Your task to perform on an android device: turn off notifications settings in the gmail app Image 0: 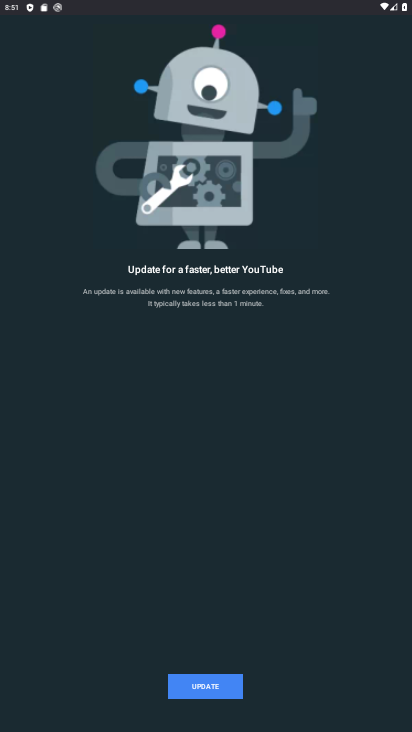
Step 0: press home button
Your task to perform on an android device: turn off notifications settings in the gmail app Image 1: 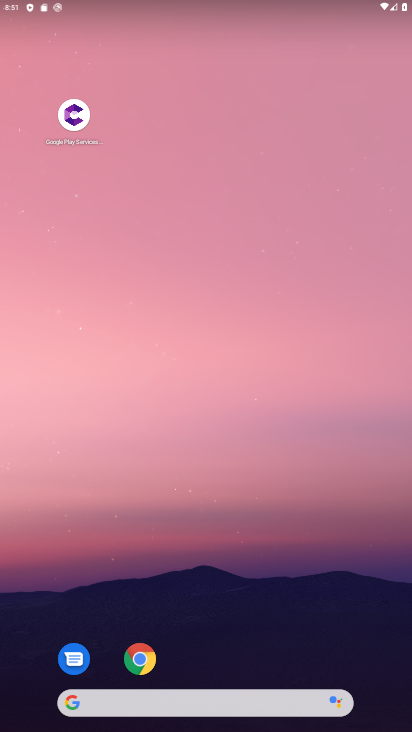
Step 1: drag from (372, 658) to (255, 18)
Your task to perform on an android device: turn off notifications settings in the gmail app Image 2: 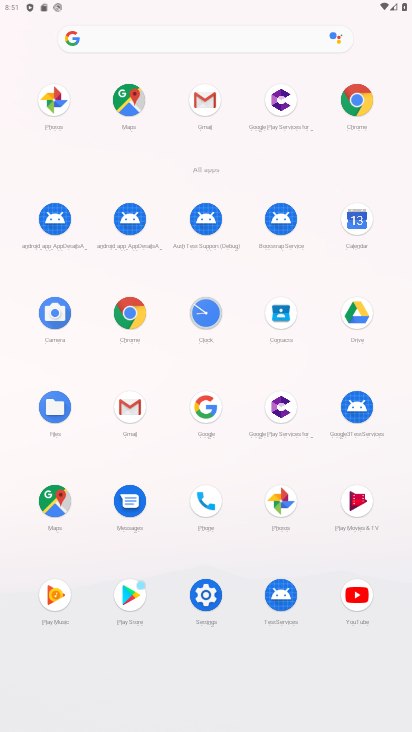
Step 2: click (130, 407)
Your task to perform on an android device: turn off notifications settings in the gmail app Image 3: 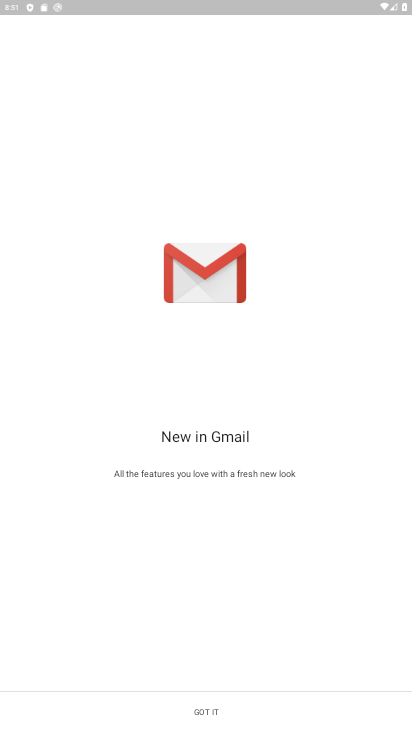
Step 3: click (219, 706)
Your task to perform on an android device: turn off notifications settings in the gmail app Image 4: 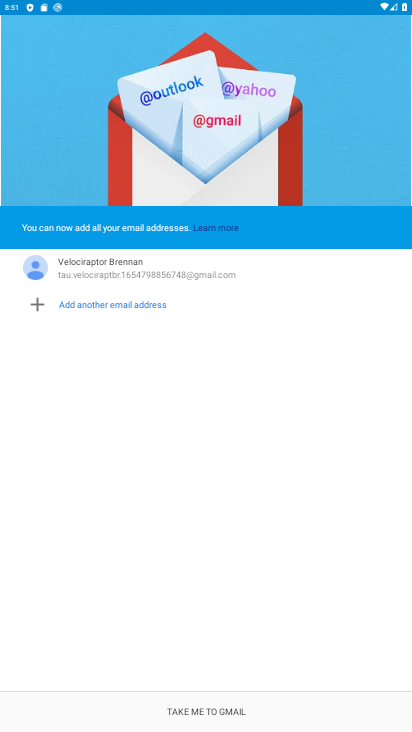
Step 4: click (219, 706)
Your task to perform on an android device: turn off notifications settings in the gmail app Image 5: 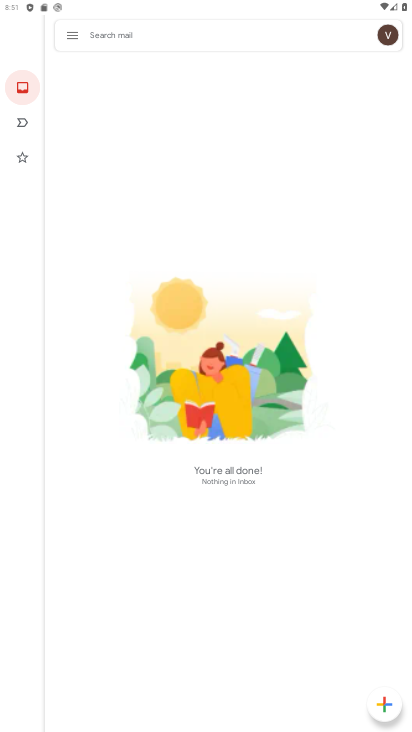
Step 5: click (67, 34)
Your task to perform on an android device: turn off notifications settings in the gmail app Image 6: 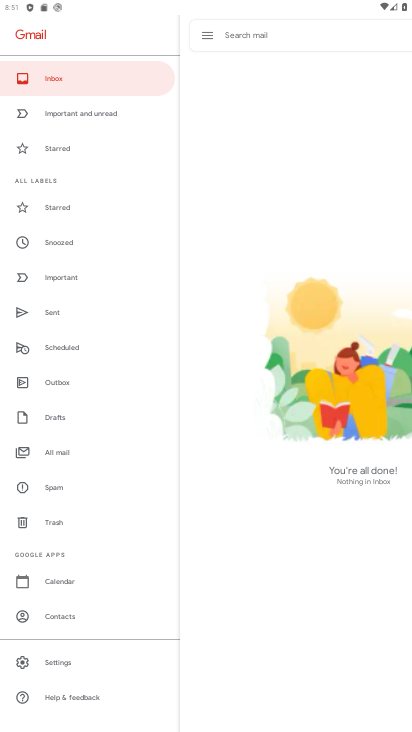
Step 6: click (61, 663)
Your task to perform on an android device: turn off notifications settings in the gmail app Image 7: 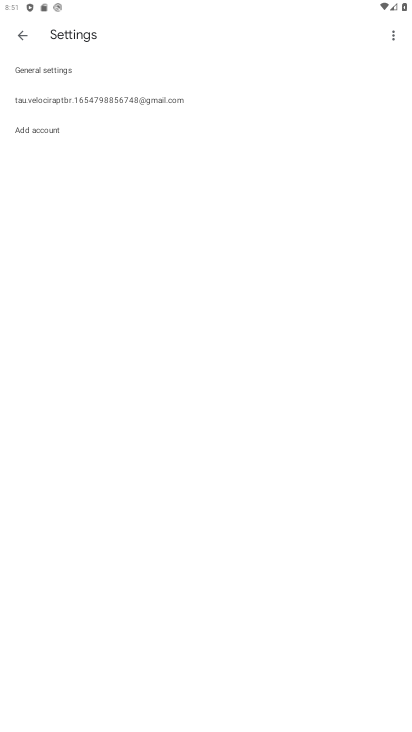
Step 7: click (69, 93)
Your task to perform on an android device: turn off notifications settings in the gmail app Image 8: 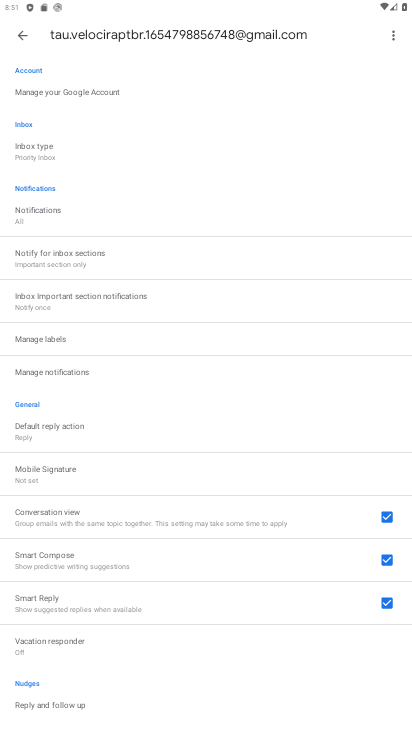
Step 8: click (70, 365)
Your task to perform on an android device: turn off notifications settings in the gmail app Image 9: 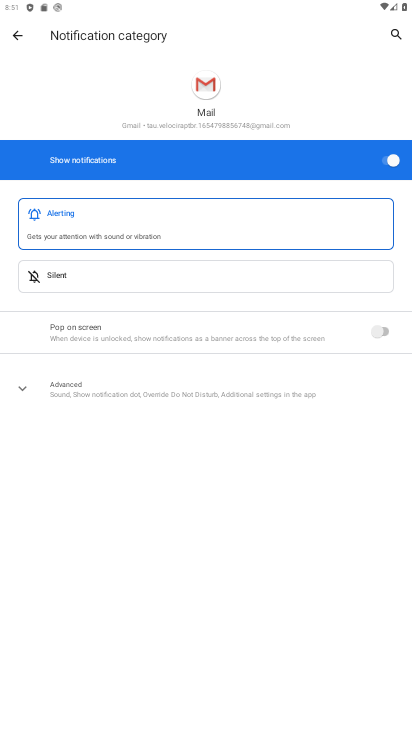
Step 9: click (387, 162)
Your task to perform on an android device: turn off notifications settings in the gmail app Image 10: 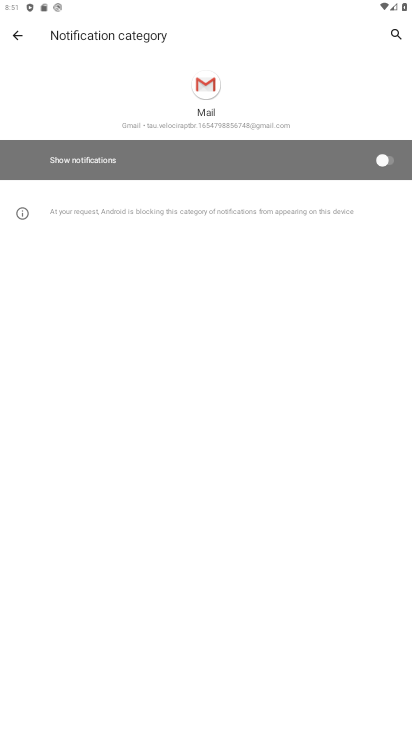
Step 10: task complete